Your task to perform on an android device: turn off translation in the chrome app Image 0: 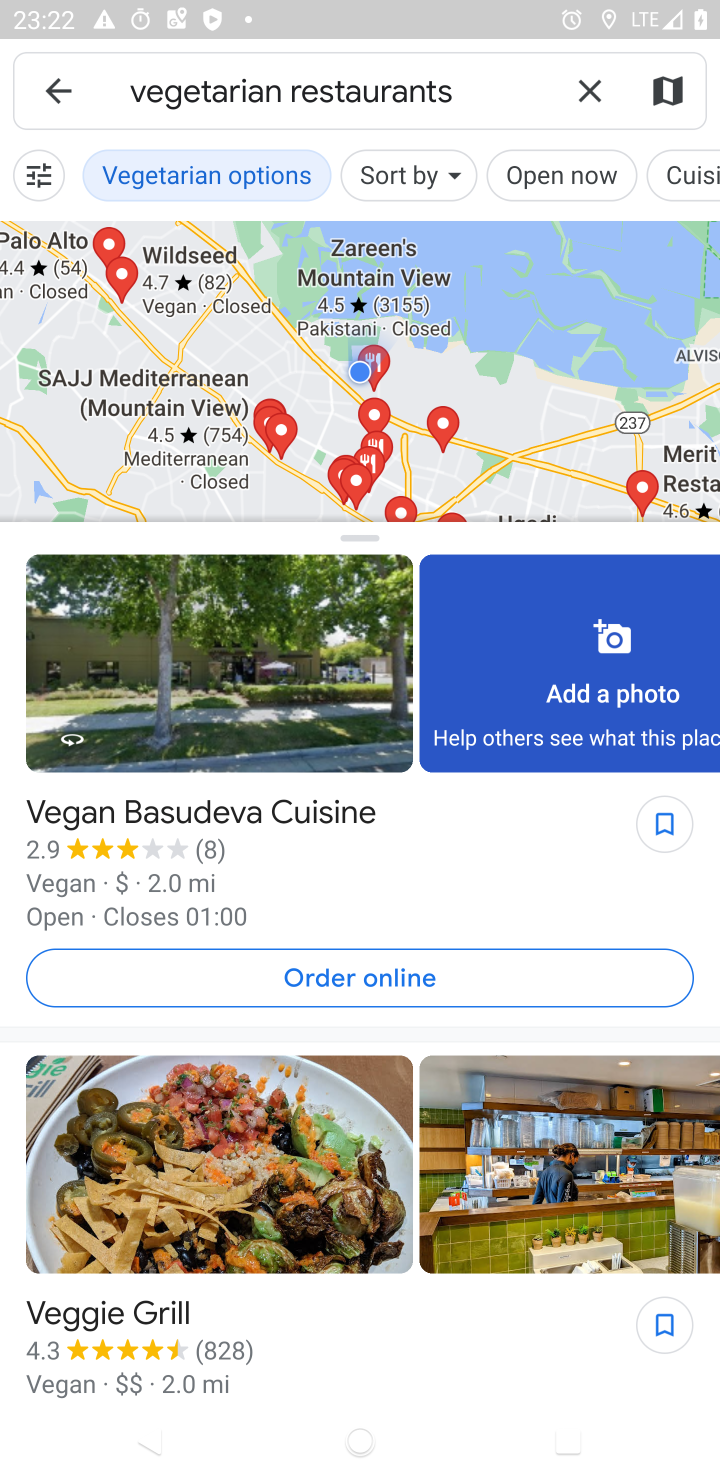
Step 0: press home button
Your task to perform on an android device: turn off translation in the chrome app Image 1: 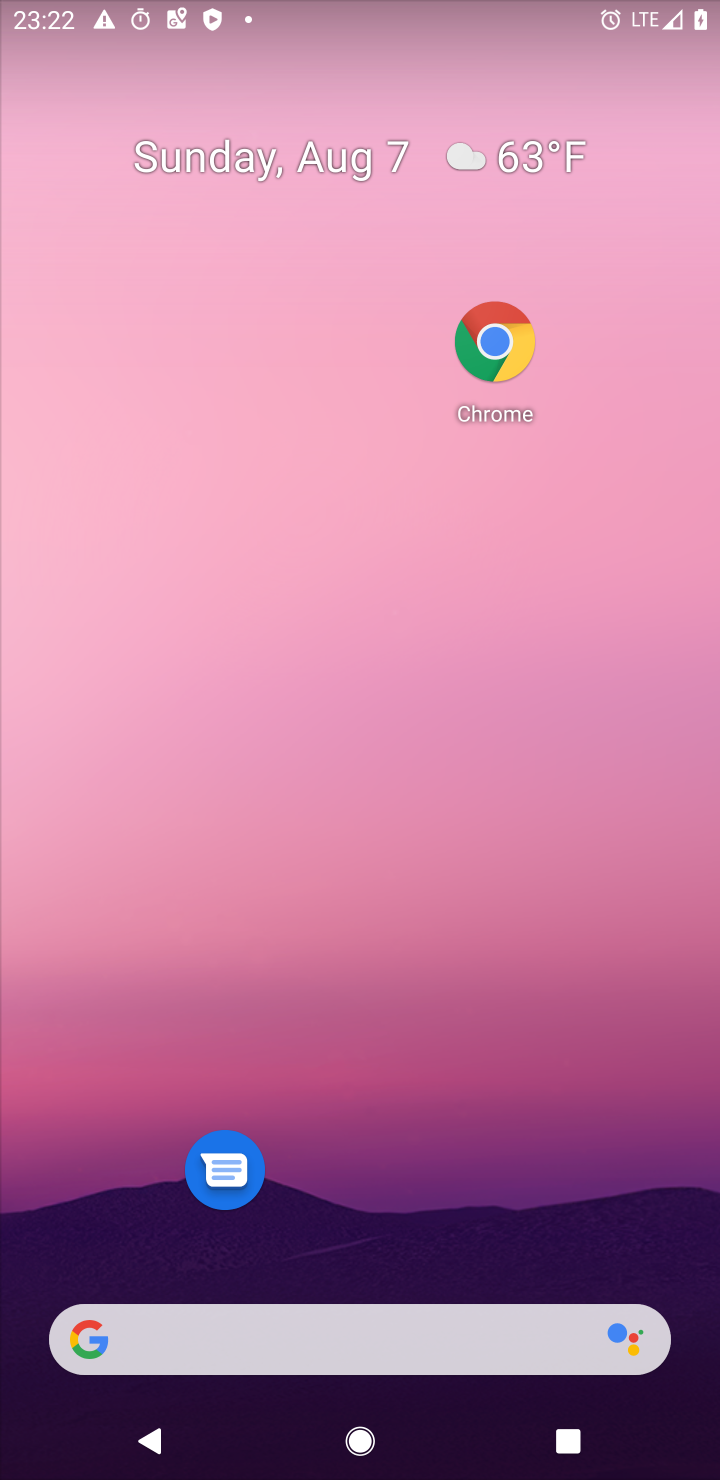
Step 1: drag from (286, 1346) to (381, 172)
Your task to perform on an android device: turn off translation in the chrome app Image 2: 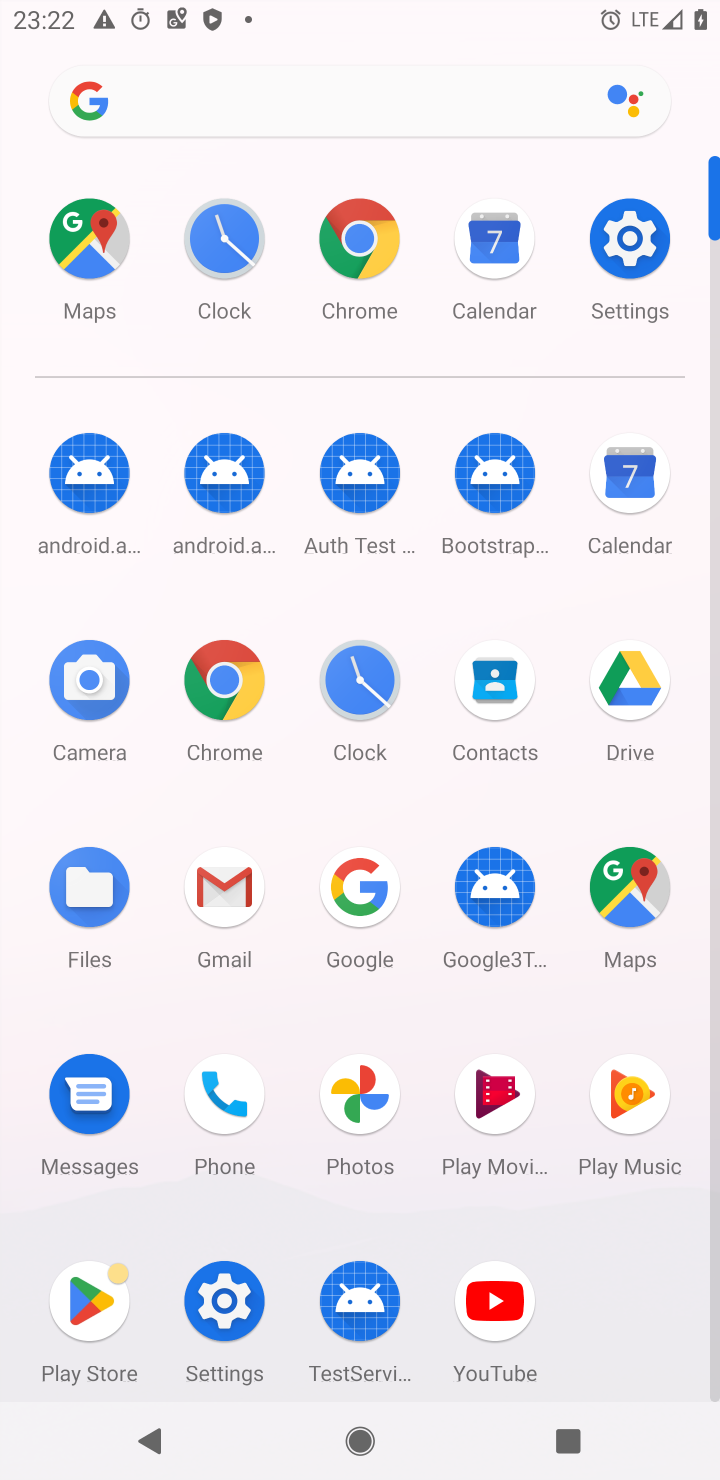
Step 2: click (236, 696)
Your task to perform on an android device: turn off translation in the chrome app Image 3: 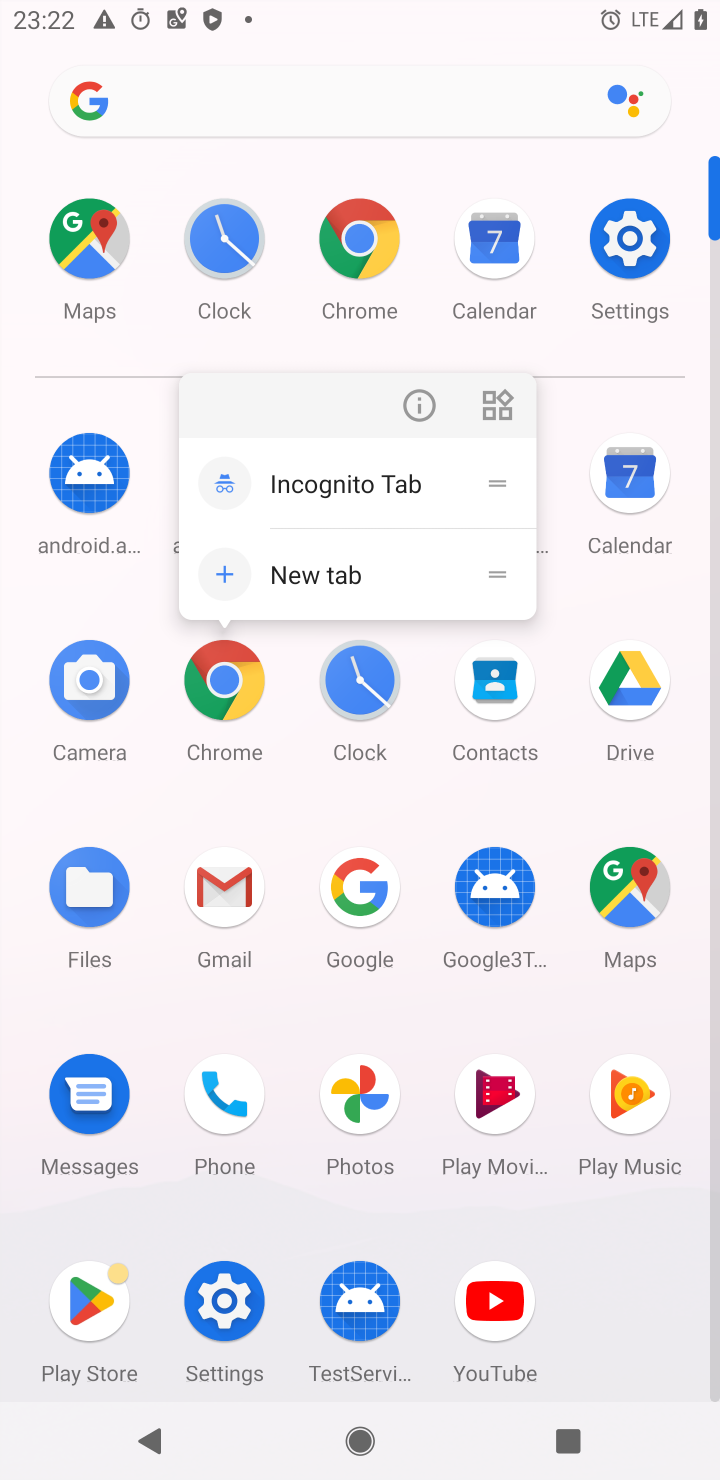
Step 3: click (236, 696)
Your task to perform on an android device: turn off translation in the chrome app Image 4: 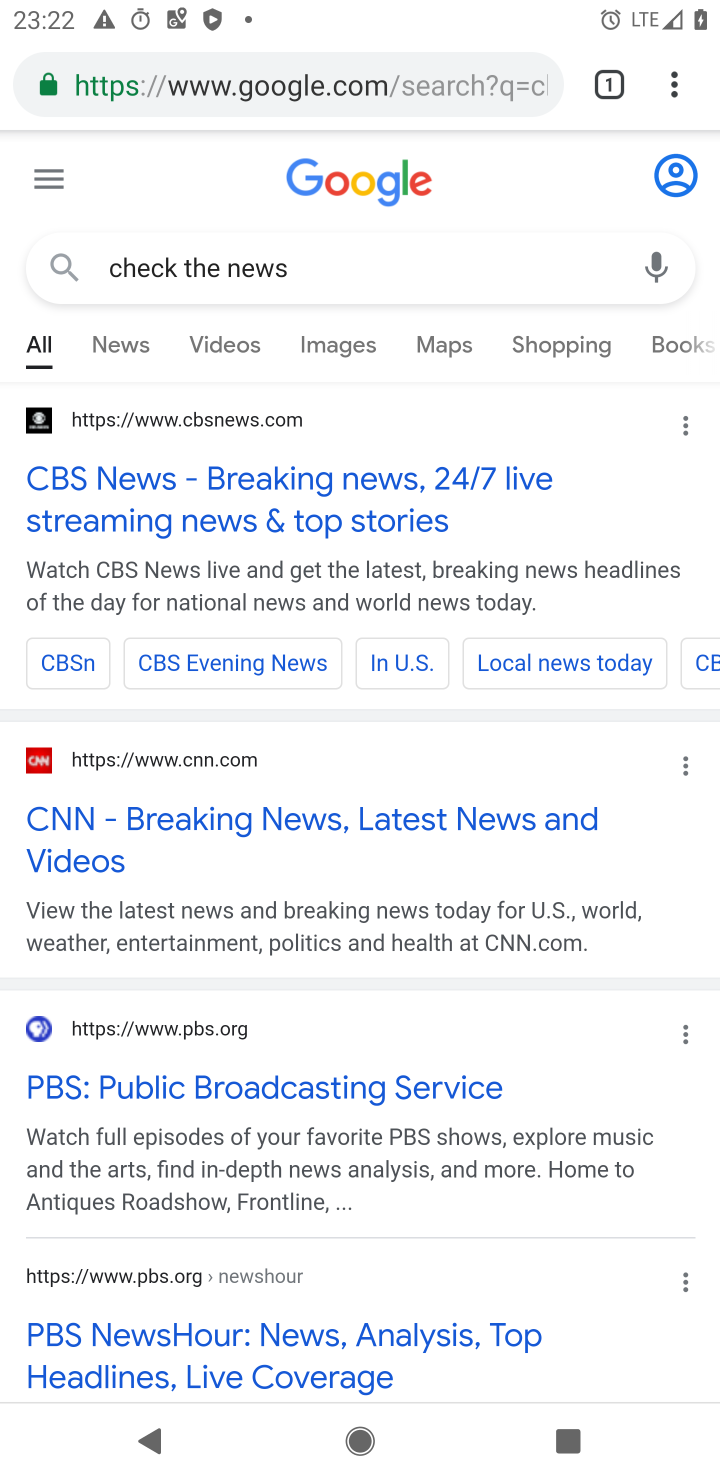
Step 4: click (669, 91)
Your task to perform on an android device: turn off translation in the chrome app Image 5: 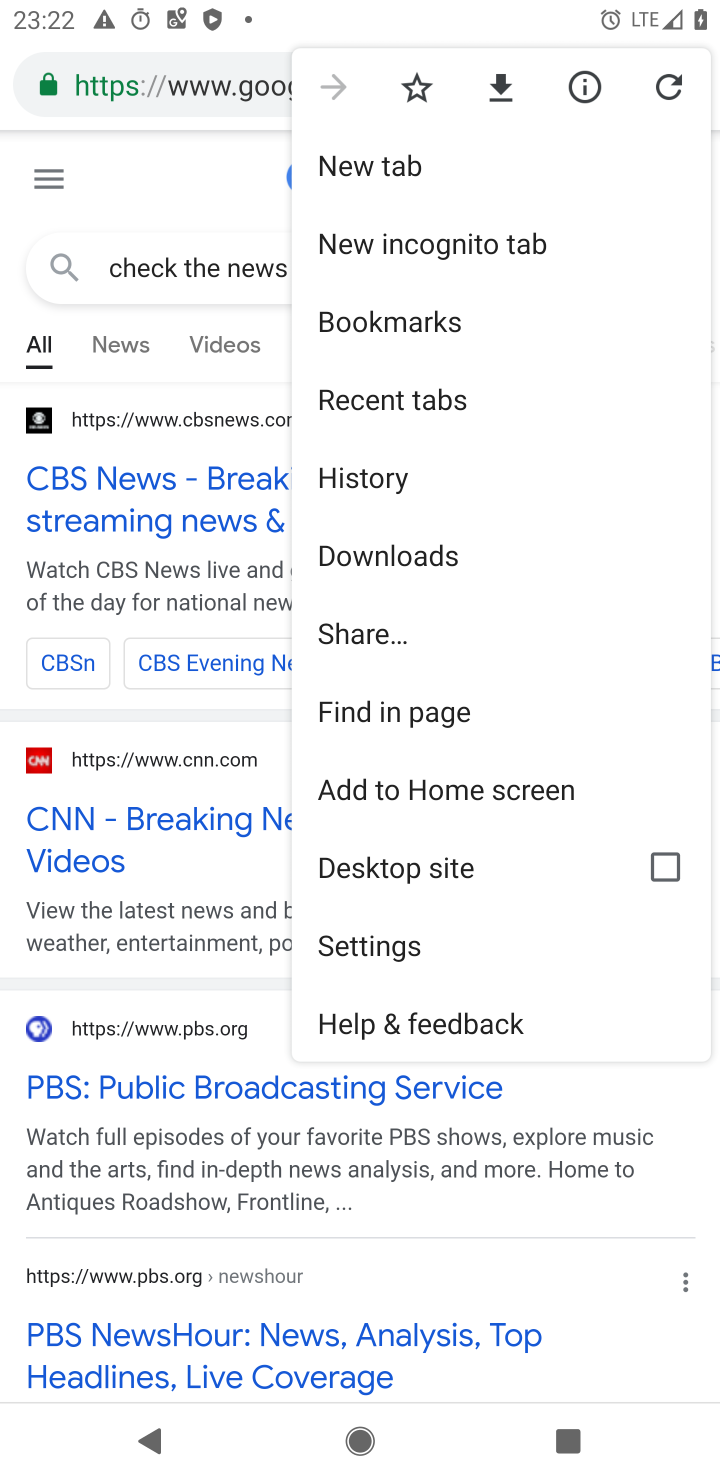
Step 5: click (394, 940)
Your task to perform on an android device: turn off translation in the chrome app Image 6: 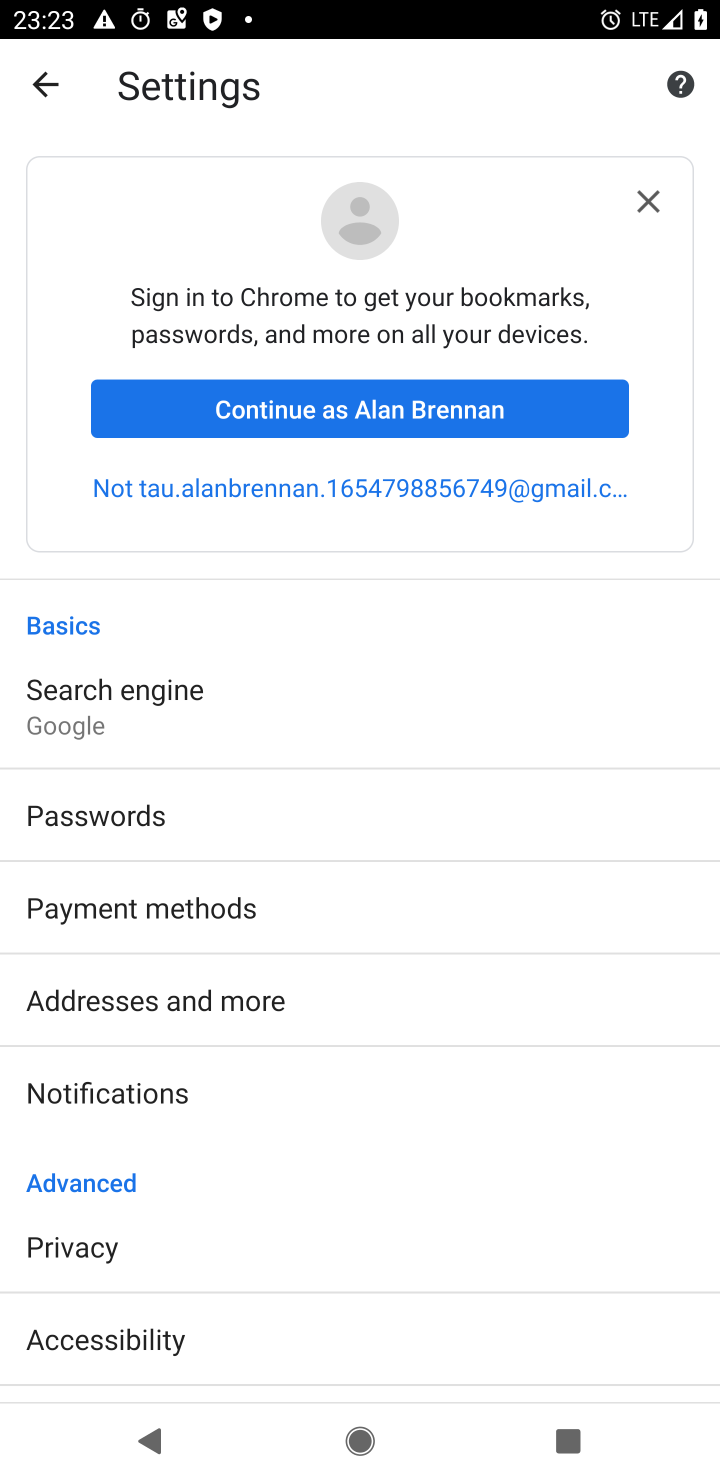
Step 6: drag from (337, 1188) to (382, 624)
Your task to perform on an android device: turn off translation in the chrome app Image 7: 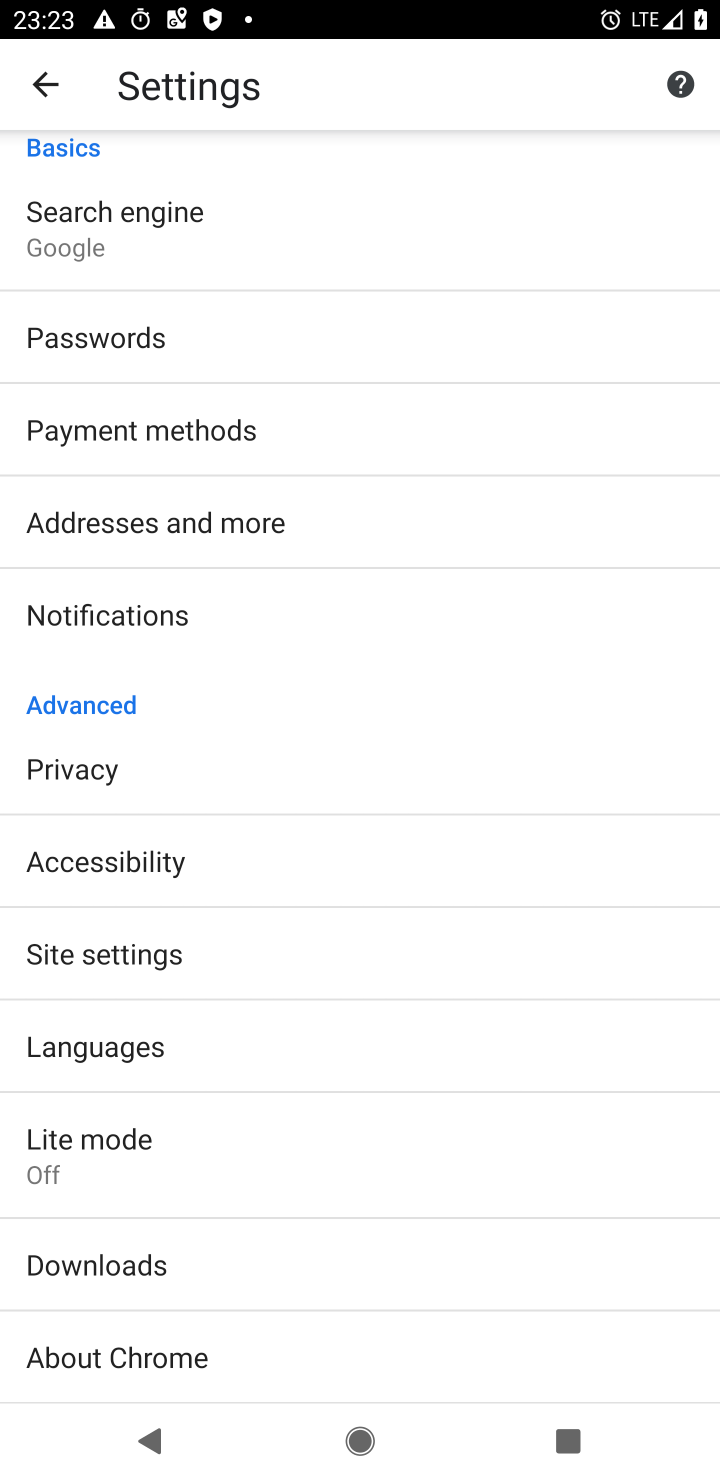
Step 7: click (132, 1111)
Your task to perform on an android device: turn off translation in the chrome app Image 8: 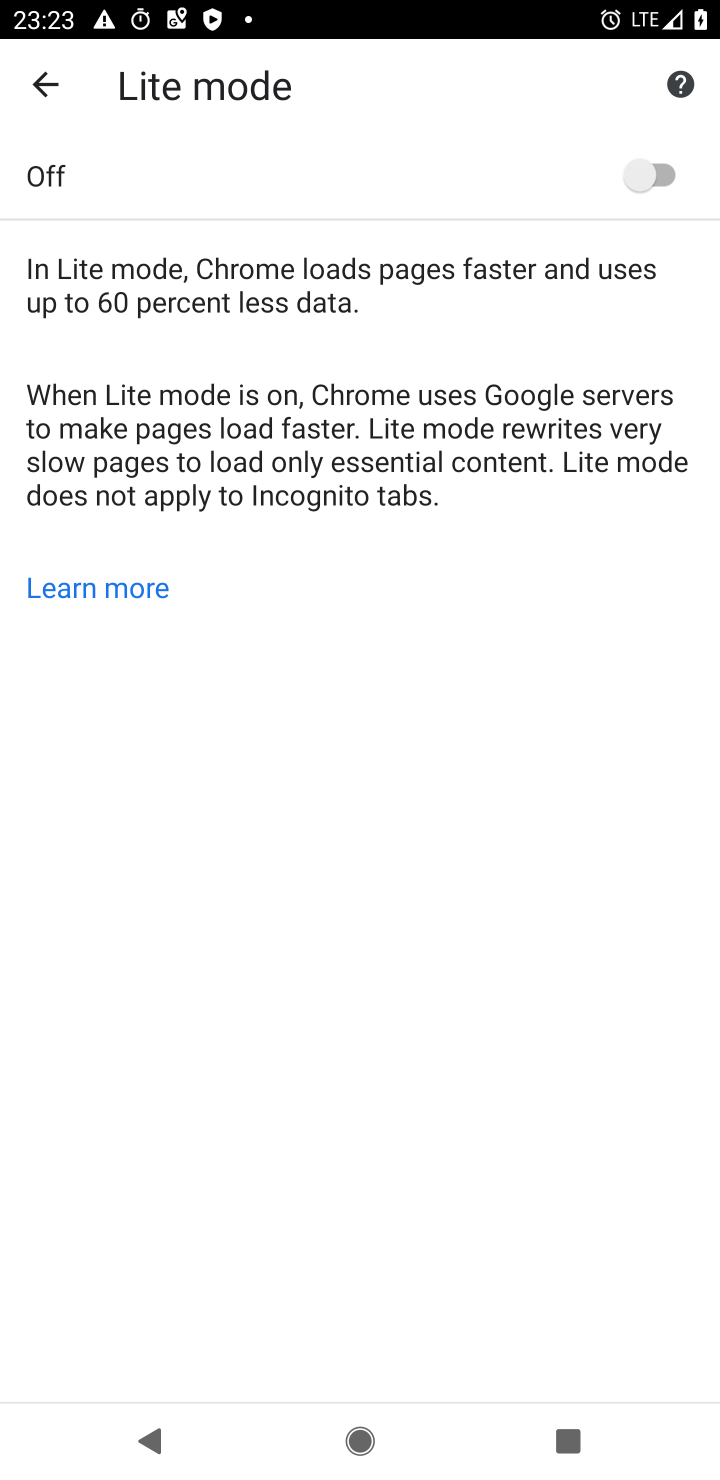
Step 8: task complete